Your task to perform on an android device: check storage Image 0: 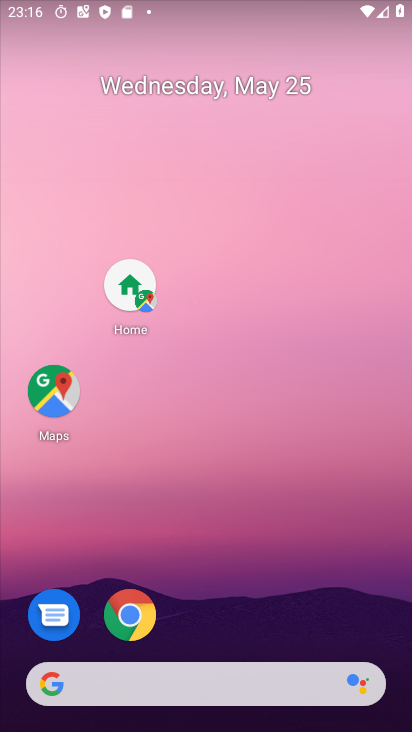
Step 0: drag from (255, 525) to (273, 69)
Your task to perform on an android device: check storage Image 1: 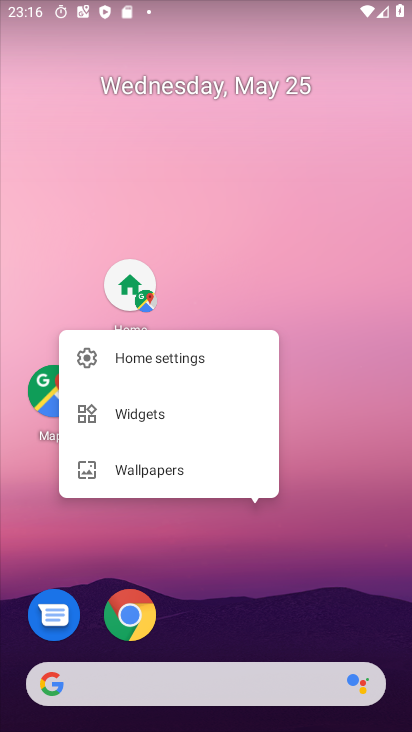
Step 1: press home button
Your task to perform on an android device: check storage Image 2: 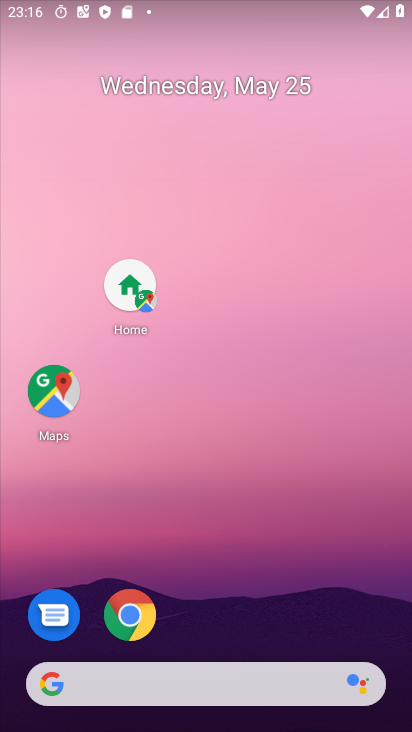
Step 2: drag from (277, 624) to (269, 107)
Your task to perform on an android device: check storage Image 3: 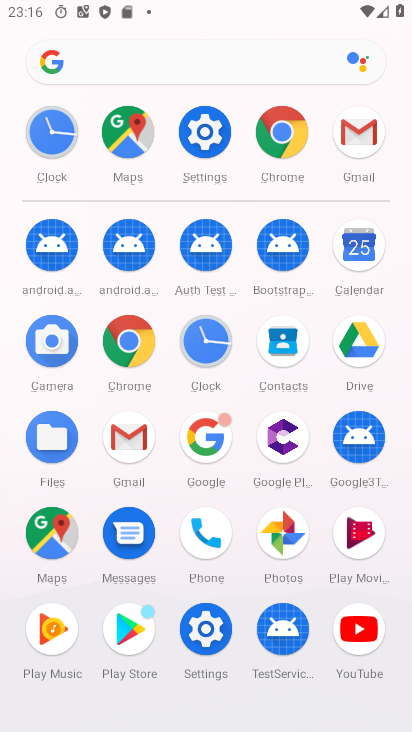
Step 3: click (199, 142)
Your task to perform on an android device: check storage Image 4: 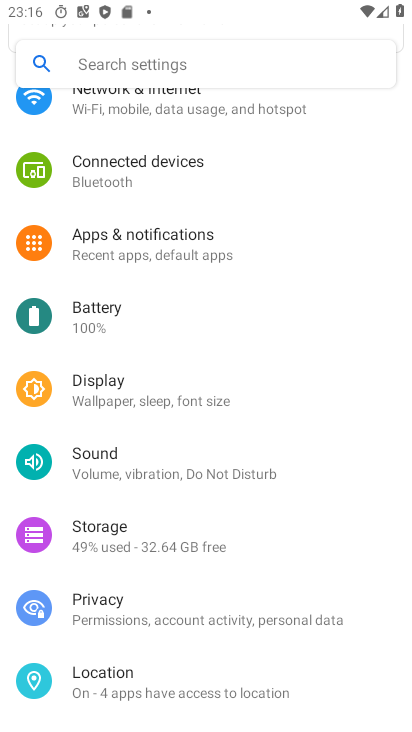
Step 4: click (96, 524)
Your task to perform on an android device: check storage Image 5: 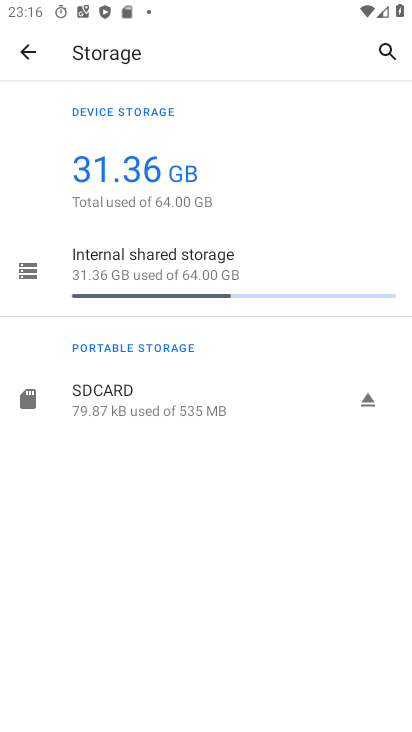
Step 5: task complete